Your task to perform on an android device: allow cookies in the chrome app Image 0: 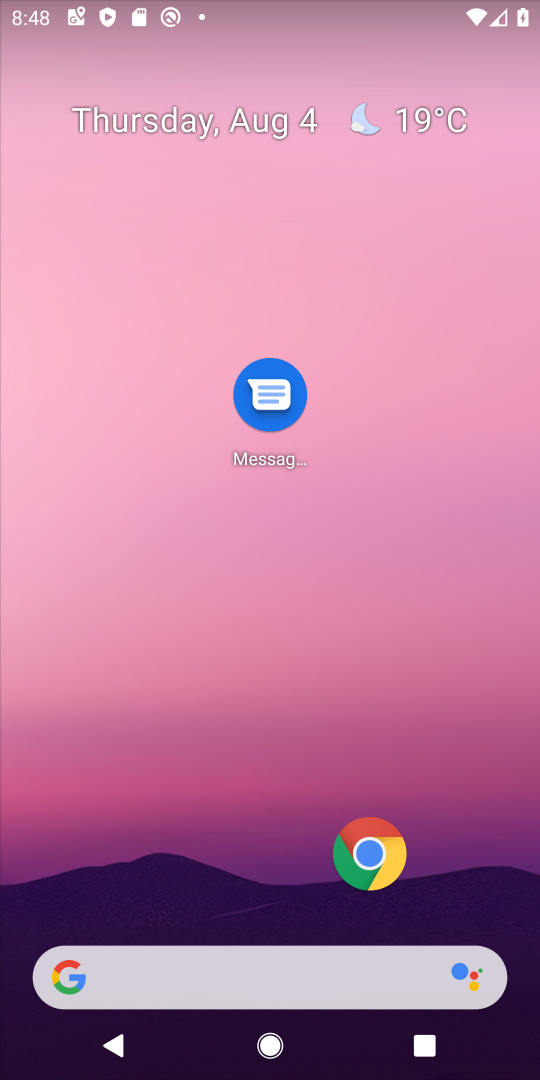
Step 0: drag from (256, 913) to (212, 289)
Your task to perform on an android device: allow cookies in the chrome app Image 1: 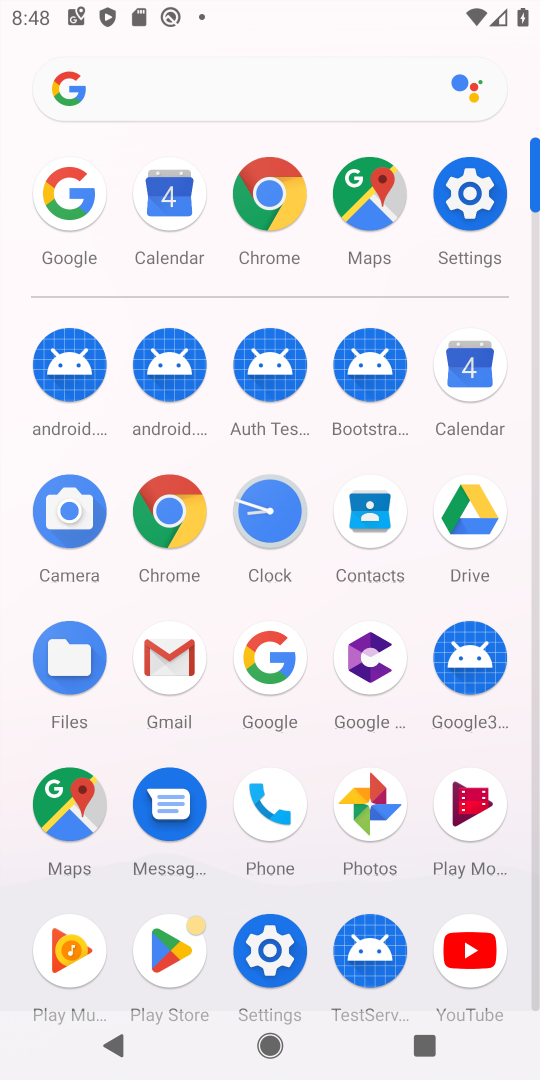
Step 1: click (269, 201)
Your task to perform on an android device: allow cookies in the chrome app Image 2: 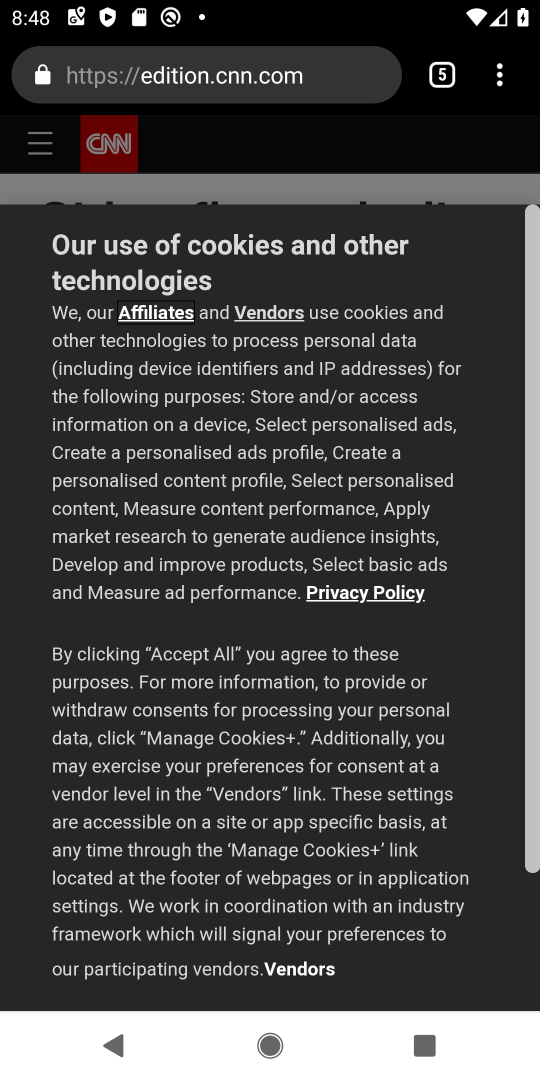
Step 2: click (498, 77)
Your task to perform on an android device: allow cookies in the chrome app Image 3: 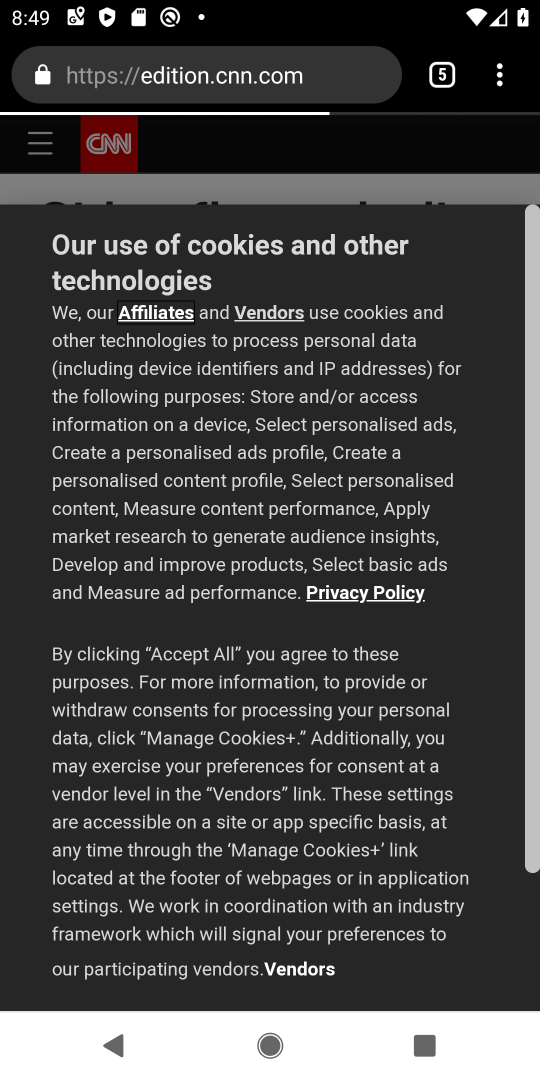
Step 3: click (498, 77)
Your task to perform on an android device: allow cookies in the chrome app Image 4: 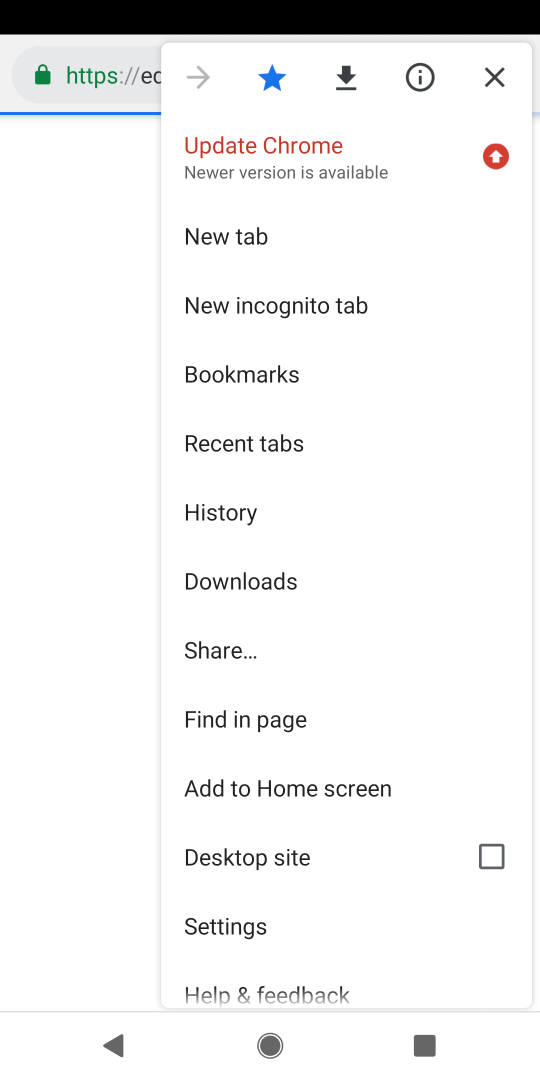
Step 4: click (238, 923)
Your task to perform on an android device: allow cookies in the chrome app Image 5: 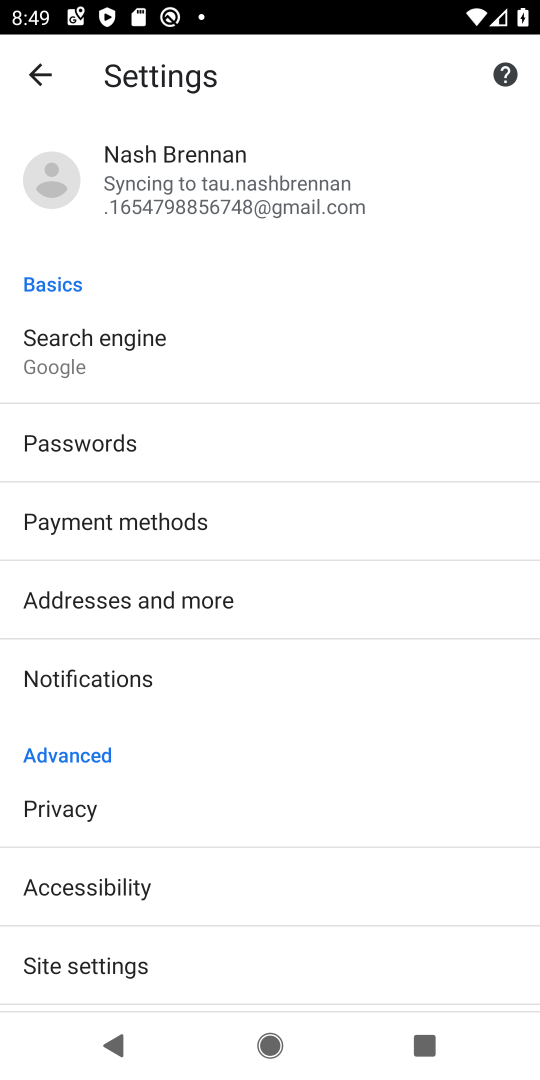
Step 5: click (134, 365)
Your task to perform on an android device: allow cookies in the chrome app Image 6: 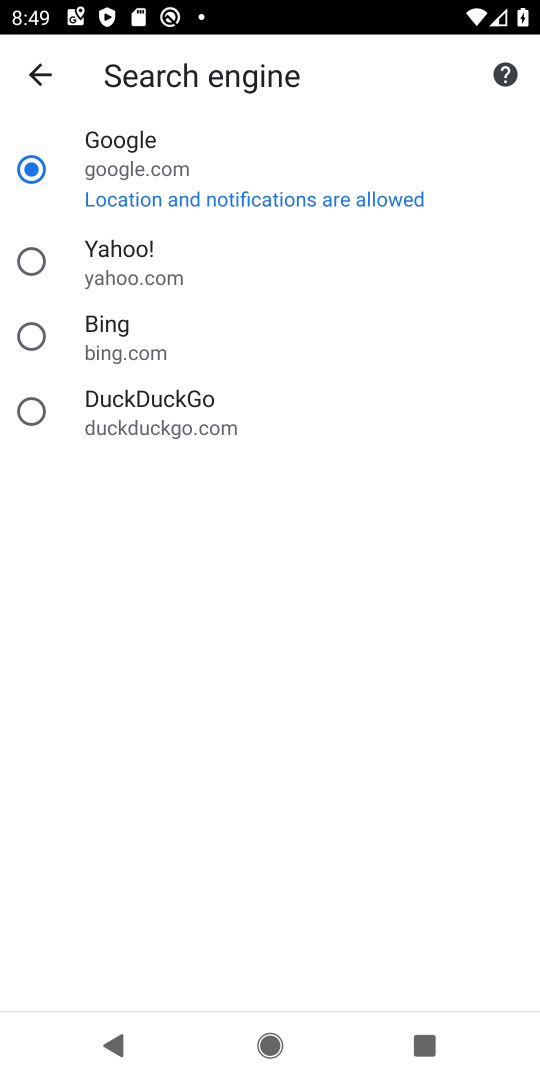
Step 6: click (44, 71)
Your task to perform on an android device: allow cookies in the chrome app Image 7: 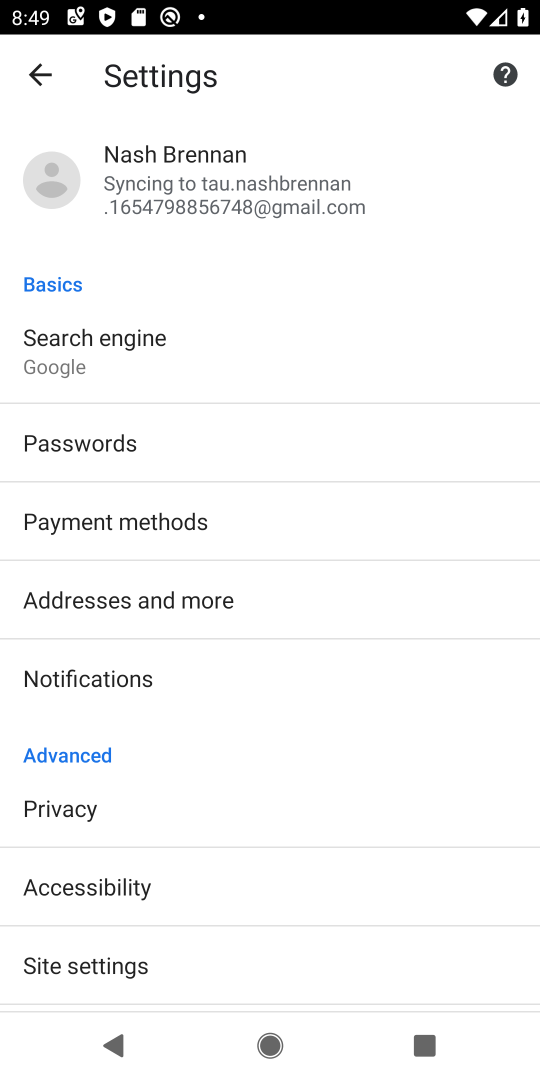
Step 7: click (70, 974)
Your task to perform on an android device: allow cookies in the chrome app Image 8: 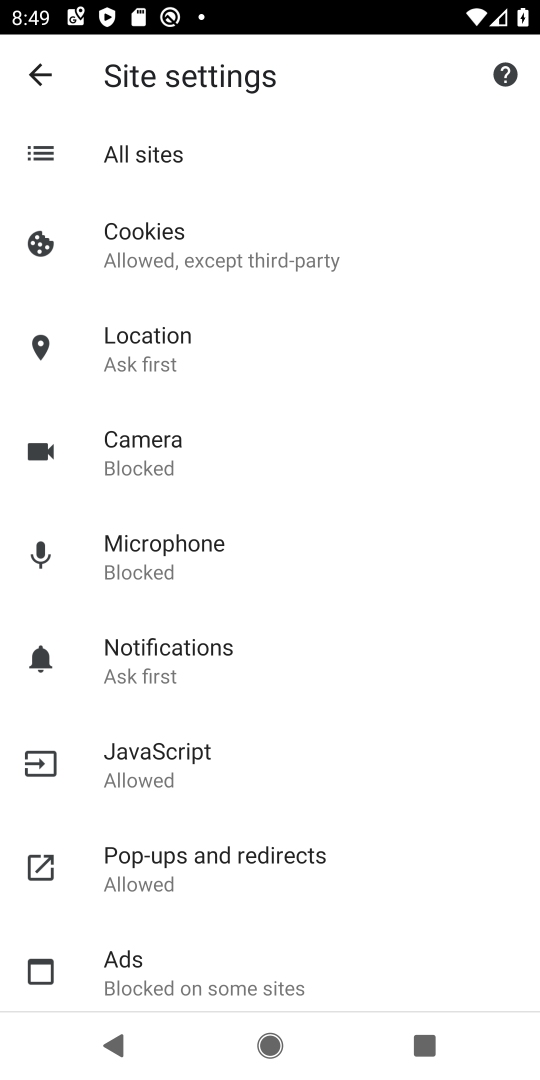
Step 8: click (163, 253)
Your task to perform on an android device: allow cookies in the chrome app Image 9: 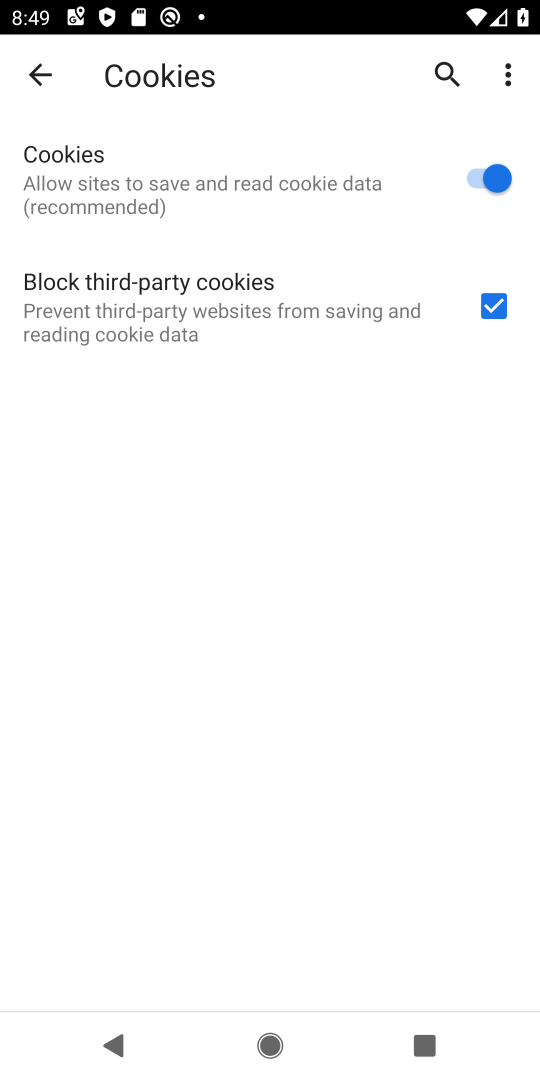
Step 9: task complete